Your task to perform on an android device: turn on the 24-hour format for clock Image 0: 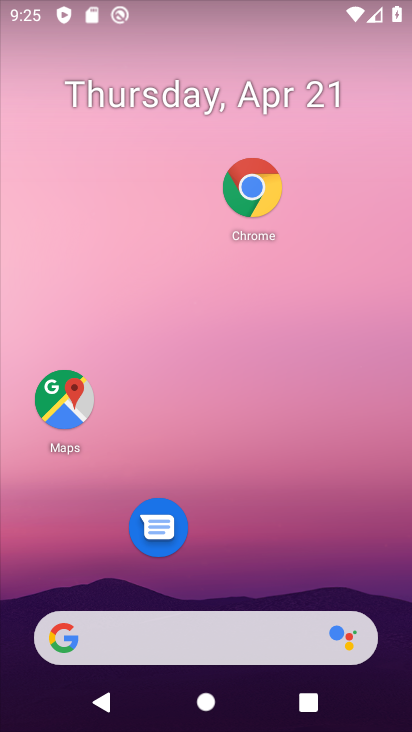
Step 0: drag from (263, 555) to (310, 124)
Your task to perform on an android device: turn on the 24-hour format for clock Image 1: 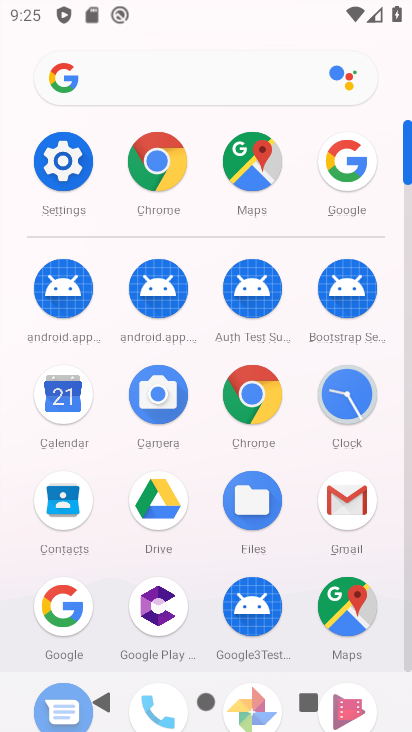
Step 1: click (349, 421)
Your task to perform on an android device: turn on the 24-hour format for clock Image 2: 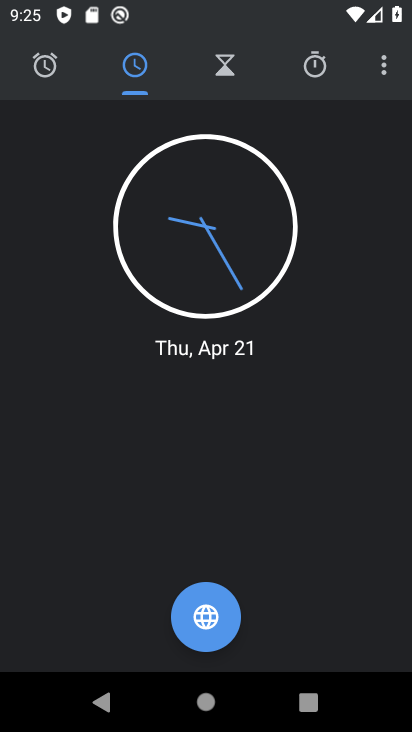
Step 2: click (392, 84)
Your task to perform on an android device: turn on the 24-hour format for clock Image 3: 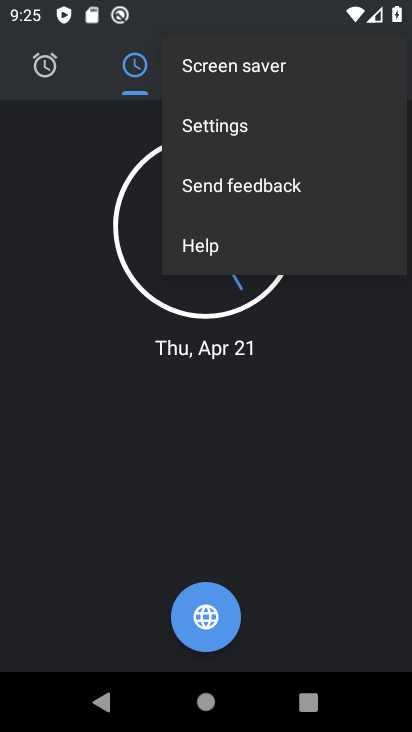
Step 3: click (270, 137)
Your task to perform on an android device: turn on the 24-hour format for clock Image 4: 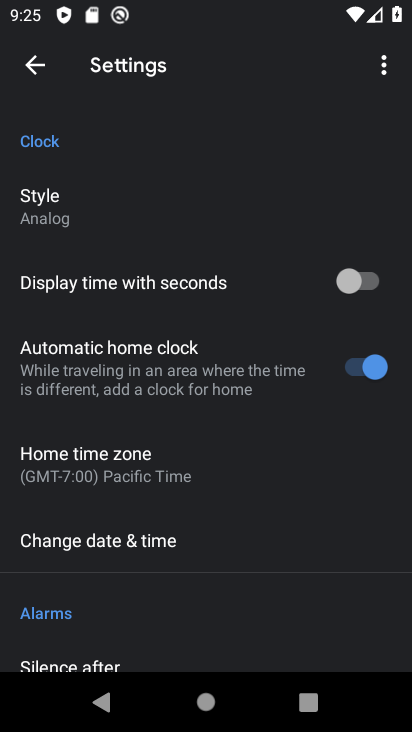
Step 4: click (169, 547)
Your task to perform on an android device: turn on the 24-hour format for clock Image 5: 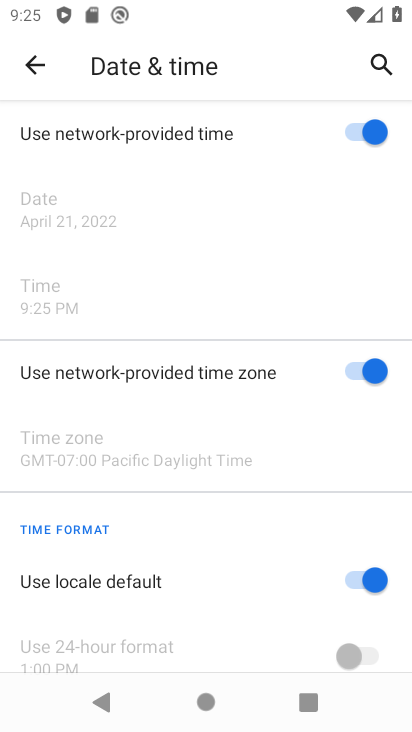
Step 5: task complete